Your task to perform on an android device: toggle priority inbox in the gmail app Image 0: 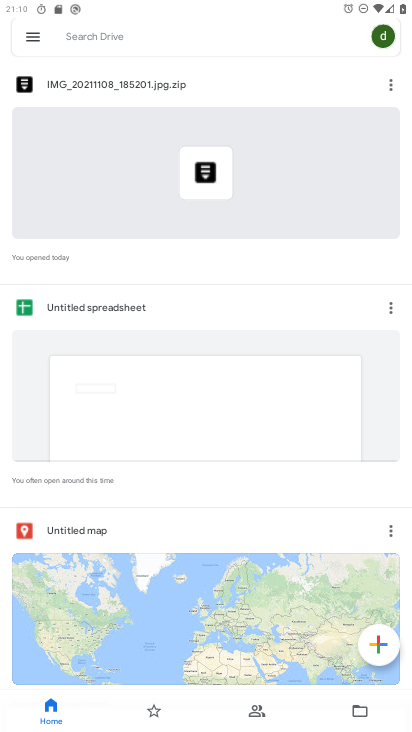
Step 0: drag from (186, 558) to (251, 29)
Your task to perform on an android device: toggle priority inbox in the gmail app Image 1: 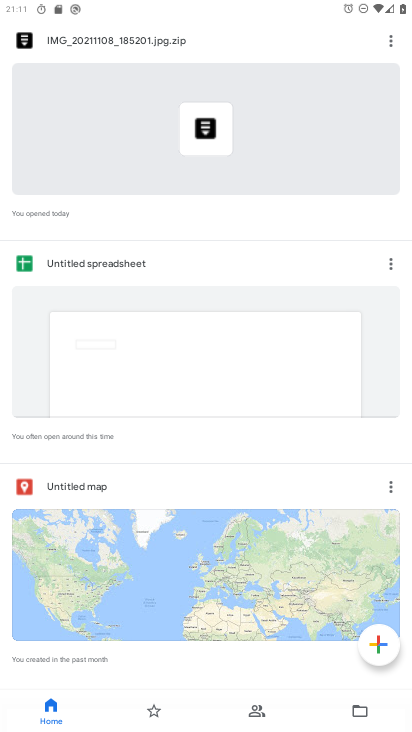
Step 1: drag from (213, 474) to (307, 223)
Your task to perform on an android device: toggle priority inbox in the gmail app Image 2: 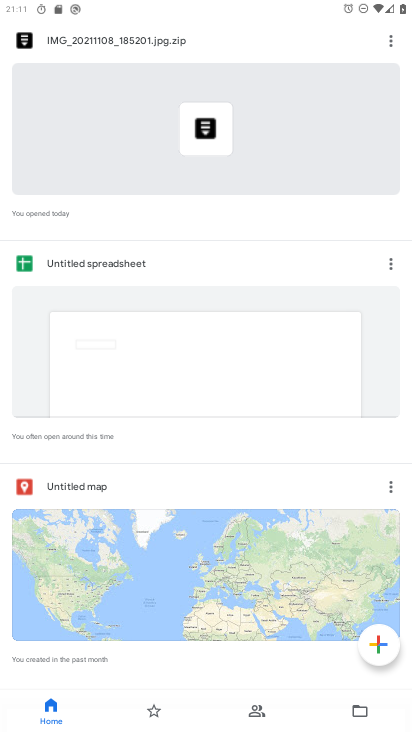
Step 2: drag from (176, 461) to (249, 188)
Your task to perform on an android device: toggle priority inbox in the gmail app Image 3: 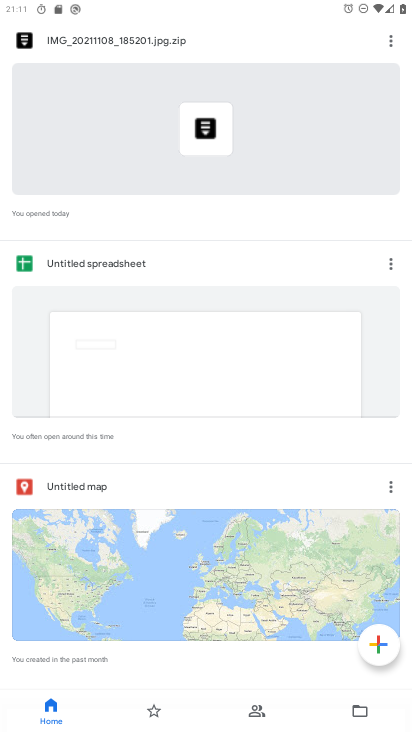
Step 3: drag from (248, 220) to (386, 697)
Your task to perform on an android device: toggle priority inbox in the gmail app Image 4: 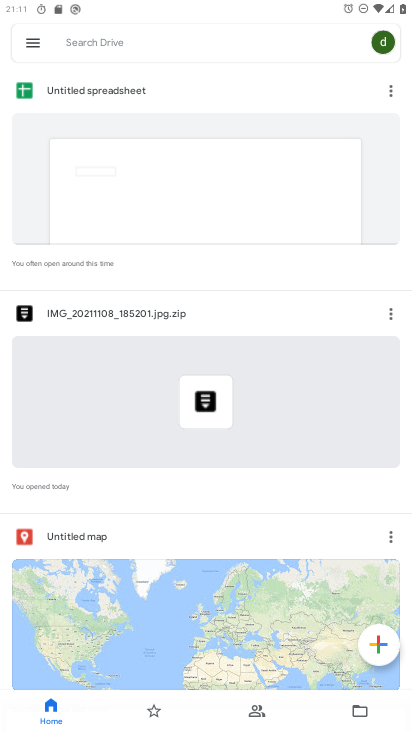
Step 4: drag from (202, 582) to (261, 383)
Your task to perform on an android device: toggle priority inbox in the gmail app Image 5: 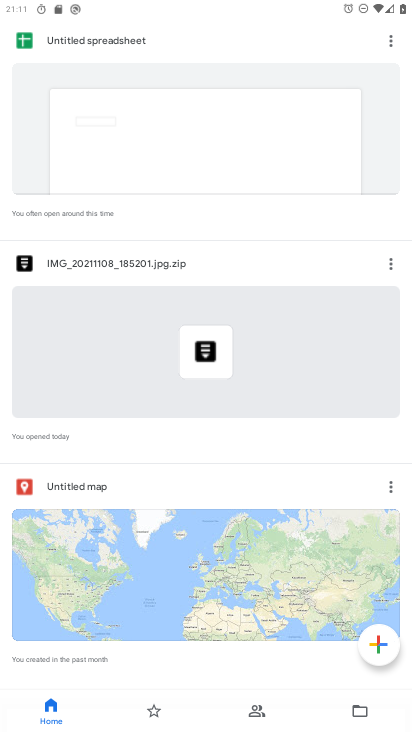
Step 5: drag from (263, 326) to (384, 728)
Your task to perform on an android device: toggle priority inbox in the gmail app Image 6: 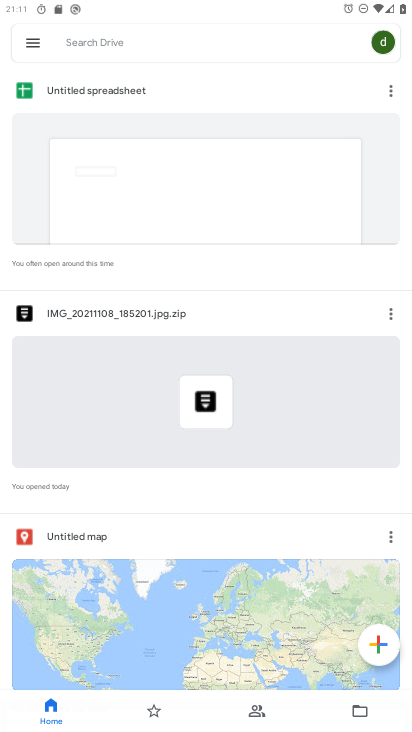
Step 6: press home button
Your task to perform on an android device: toggle priority inbox in the gmail app Image 7: 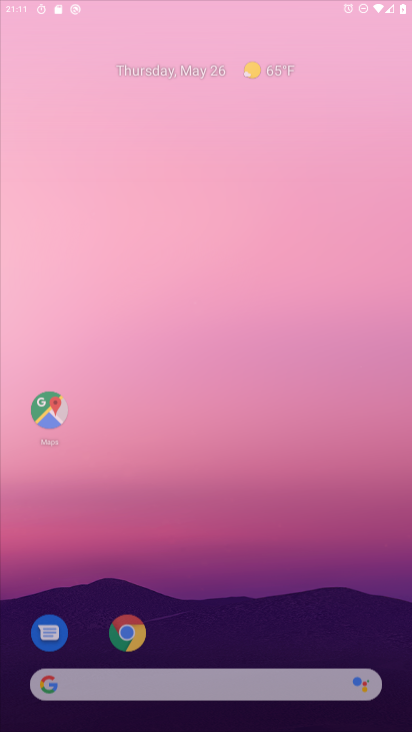
Step 7: drag from (244, 573) to (311, 228)
Your task to perform on an android device: toggle priority inbox in the gmail app Image 8: 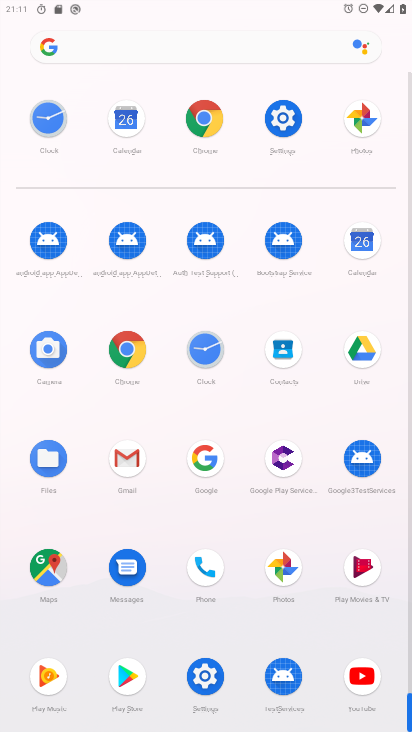
Step 8: drag from (243, 586) to (228, 294)
Your task to perform on an android device: toggle priority inbox in the gmail app Image 9: 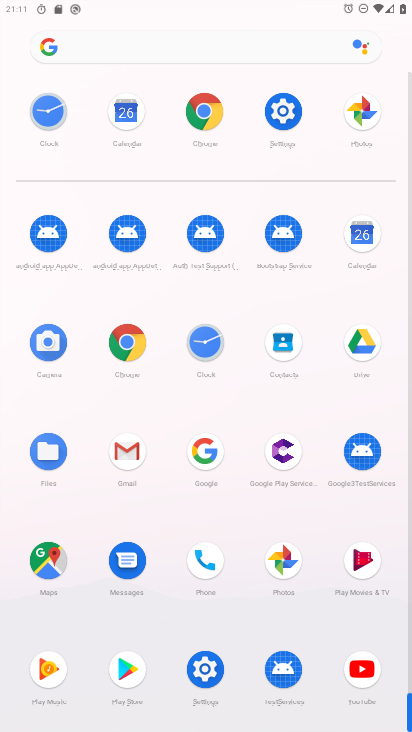
Step 9: click (108, 454)
Your task to perform on an android device: toggle priority inbox in the gmail app Image 10: 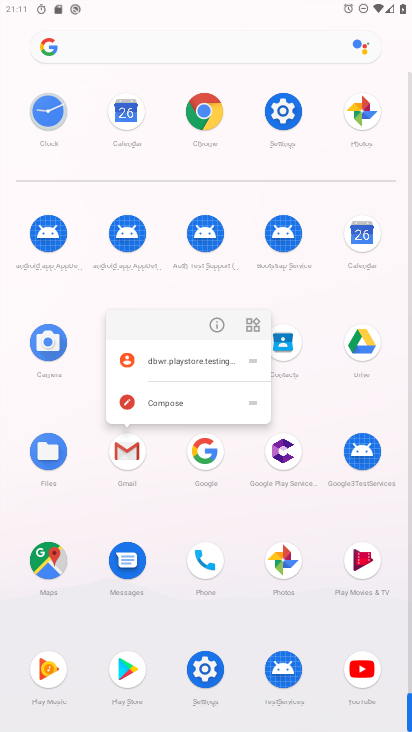
Step 10: click (210, 326)
Your task to perform on an android device: toggle priority inbox in the gmail app Image 11: 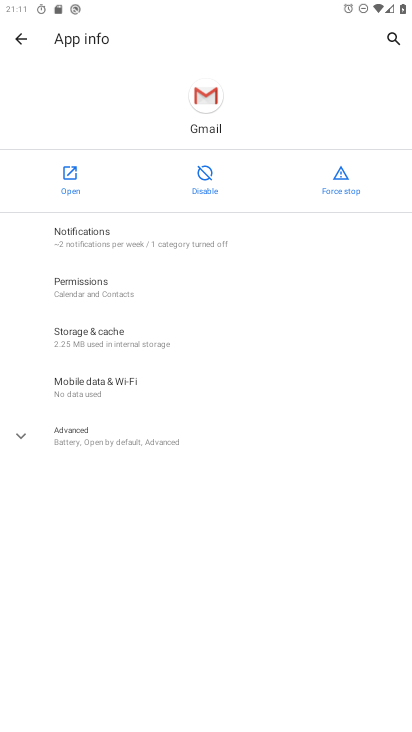
Step 11: click (59, 170)
Your task to perform on an android device: toggle priority inbox in the gmail app Image 12: 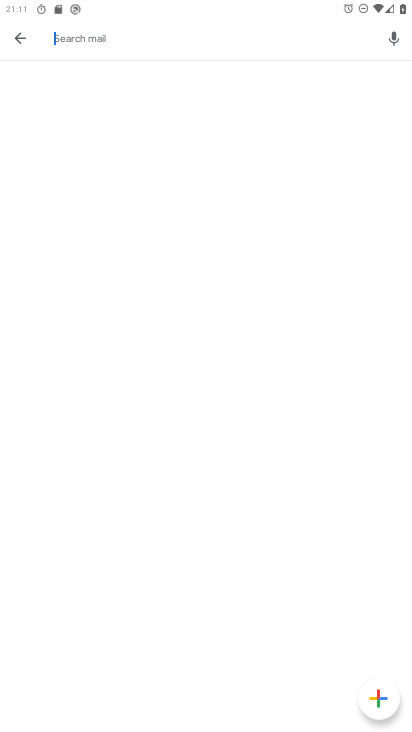
Step 12: click (21, 36)
Your task to perform on an android device: toggle priority inbox in the gmail app Image 13: 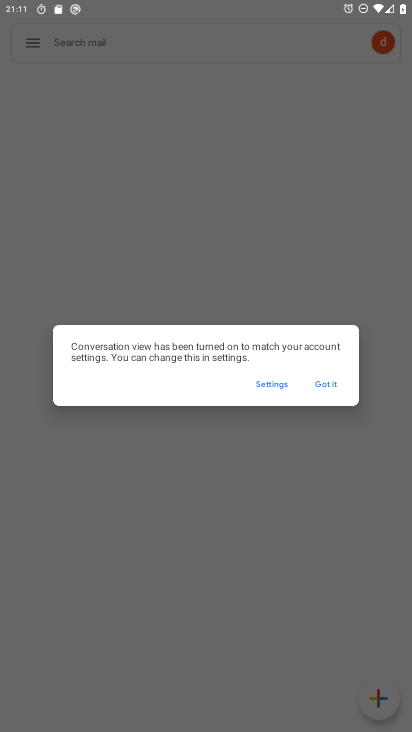
Step 13: click (324, 382)
Your task to perform on an android device: toggle priority inbox in the gmail app Image 14: 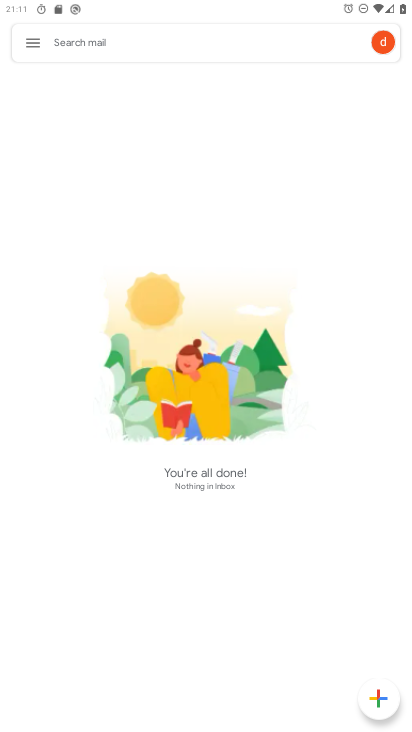
Step 14: click (22, 44)
Your task to perform on an android device: toggle priority inbox in the gmail app Image 15: 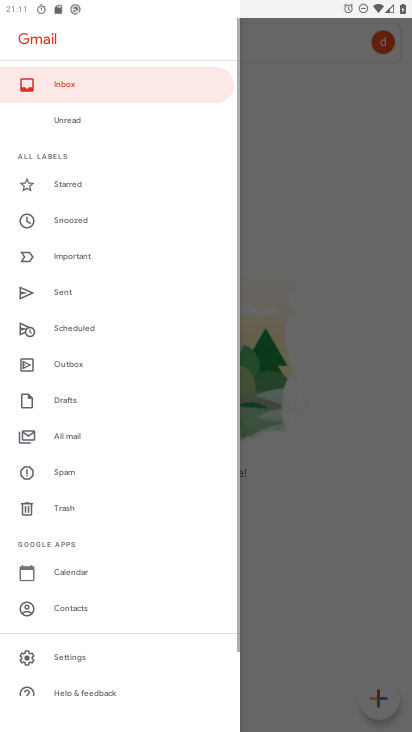
Step 15: drag from (158, 516) to (188, 194)
Your task to perform on an android device: toggle priority inbox in the gmail app Image 16: 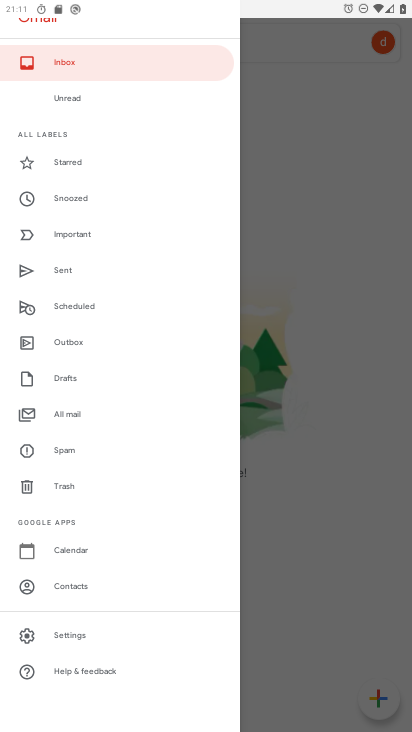
Step 16: click (80, 628)
Your task to perform on an android device: toggle priority inbox in the gmail app Image 17: 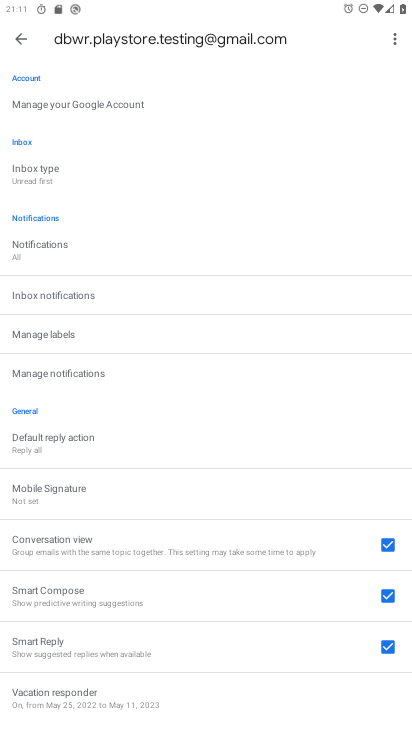
Step 17: click (69, 167)
Your task to perform on an android device: toggle priority inbox in the gmail app Image 18: 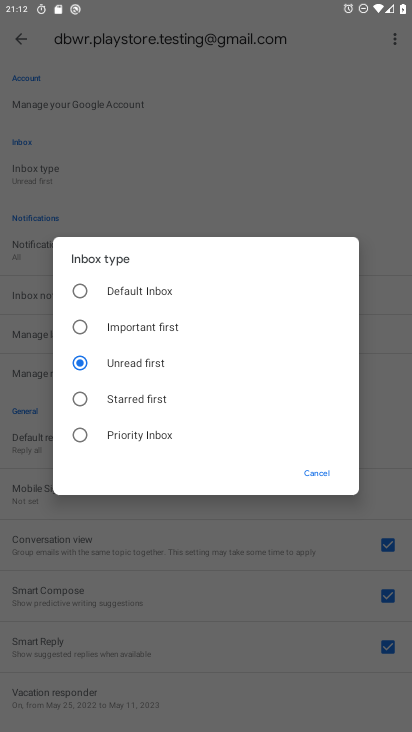
Step 18: click (97, 434)
Your task to perform on an android device: toggle priority inbox in the gmail app Image 19: 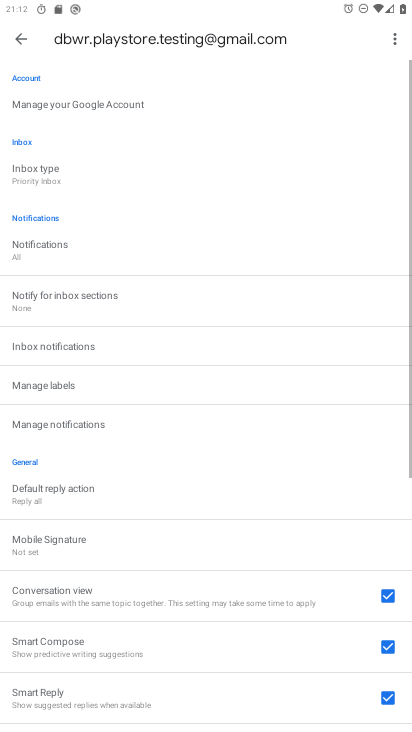
Step 19: task complete